Your task to perform on an android device: Is it going to rain tomorrow? Image 0: 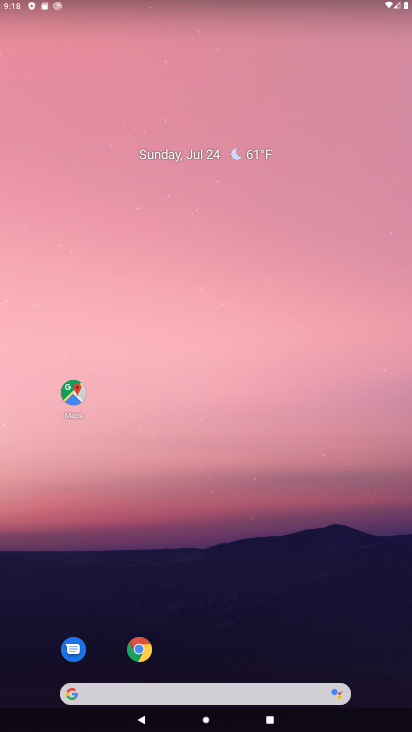
Step 0: drag from (280, 639) to (272, 71)
Your task to perform on an android device: Is it going to rain tomorrow? Image 1: 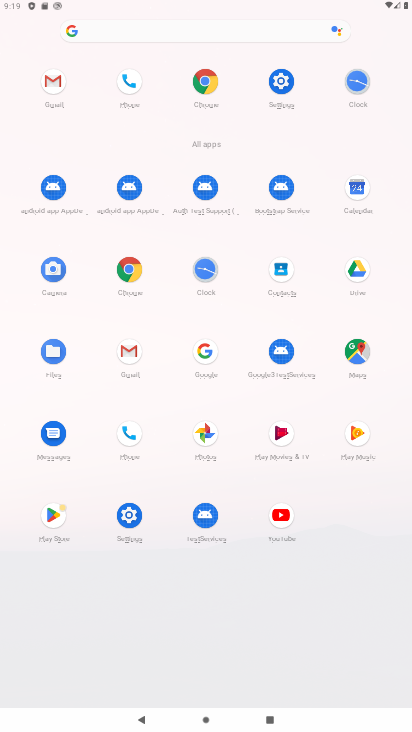
Step 1: click (126, 267)
Your task to perform on an android device: Is it going to rain tomorrow? Image 2: 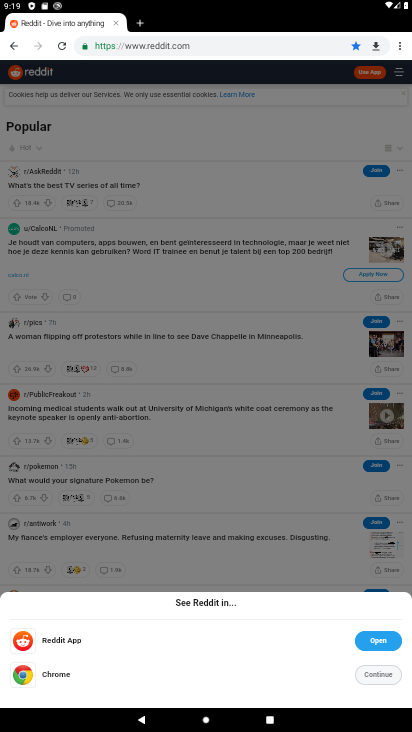
Step 2: click (211, 46)
Your task to perform on an android device: Is it going to rain tomorrow? Image 3: 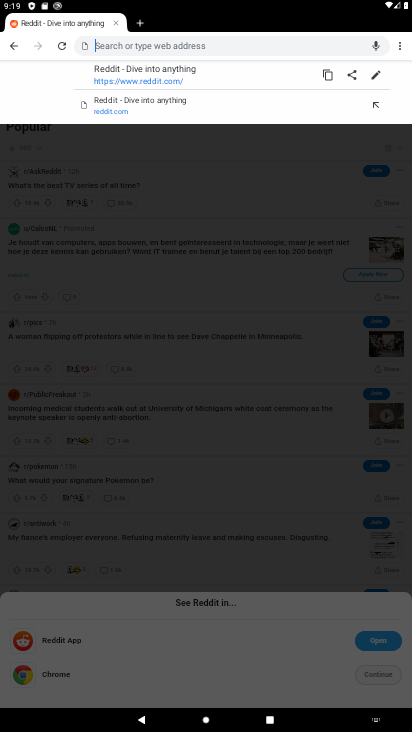
Step 3: type "weather"
Your task to perform on an android device: Is it going to rain tomorrow? Image 4: 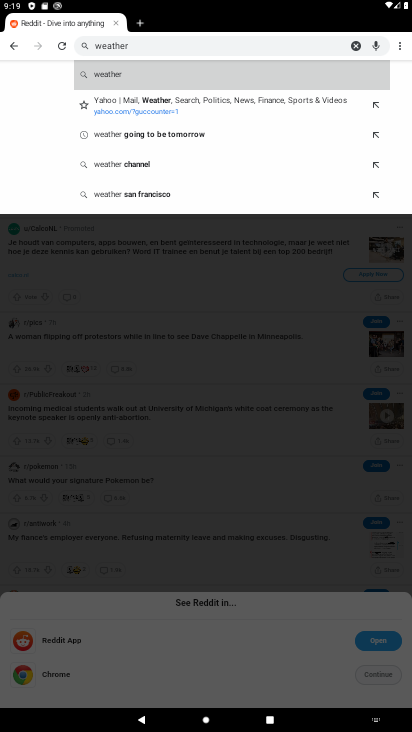
Step 4: click (213, 84)
Your task to perform on an android device: Is it going to rain tomorrow? Image 5: 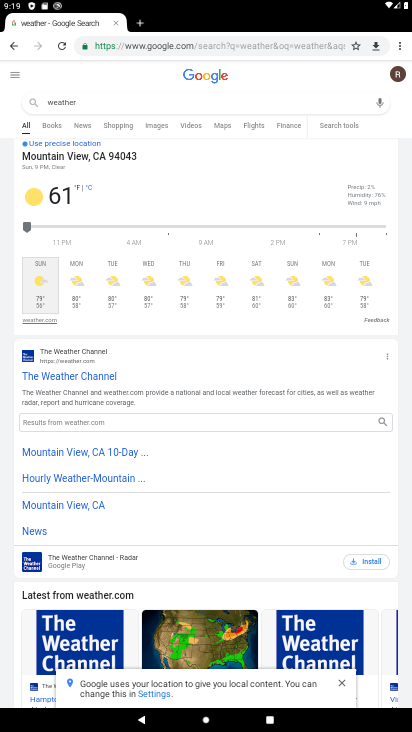
Step 5: click (76, 282)
Your task to perform on an android device: Is it going to rain tomorrow? Image 6: 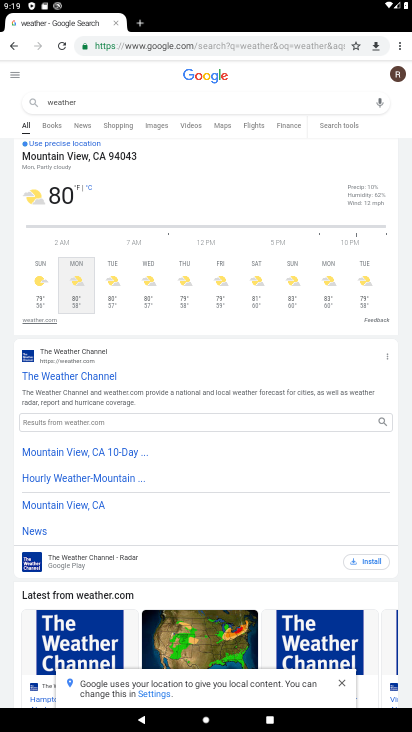
Step 6: task complete